Your task to perform on an android device: turn pop-ups on in chrome Image 0: 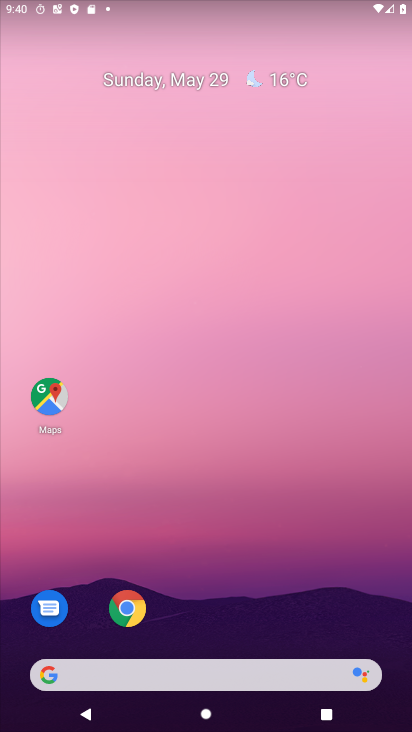
Step 0: click (142, 613)
Your task to perform on an android device: turn pop-ups on in chrome Image 1: 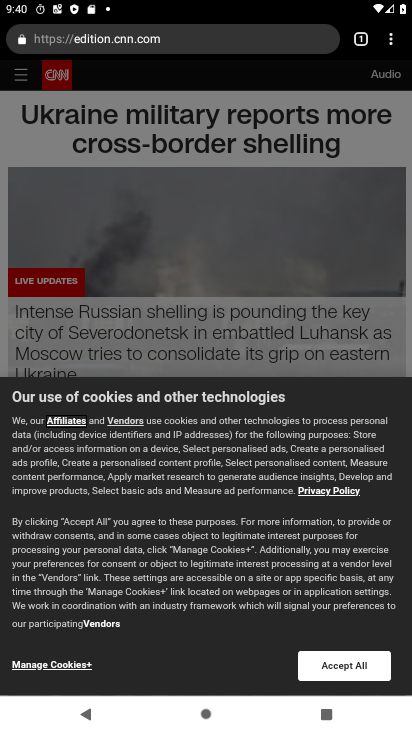
Step 1: click (389, 41)
Your task to perform on an android device: turn pop-ups on in chrome Image 2: 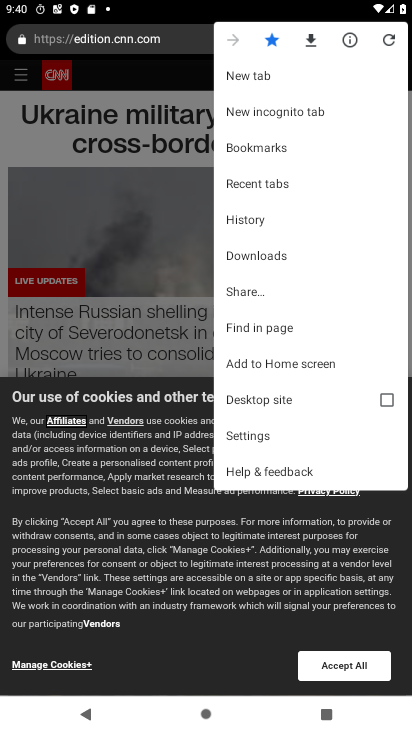
Step 2: click (272, 434)
Your task to perform on an android device: turn pop-ups on in chrome Image 3: 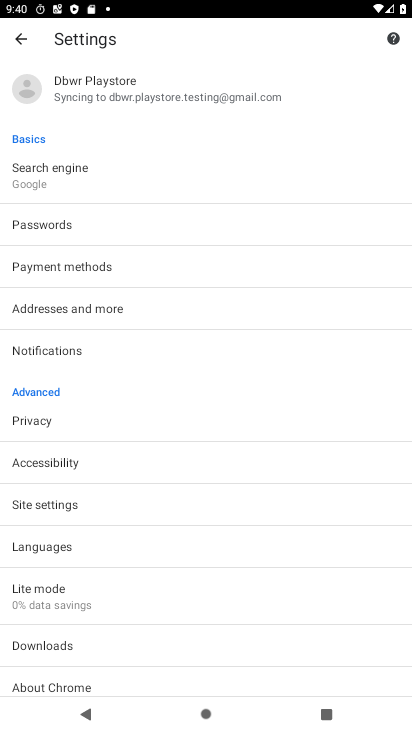
Step 3: click (50, 518)
Your task to perform on an android device: turn pop-ups on in chrome Image 4: 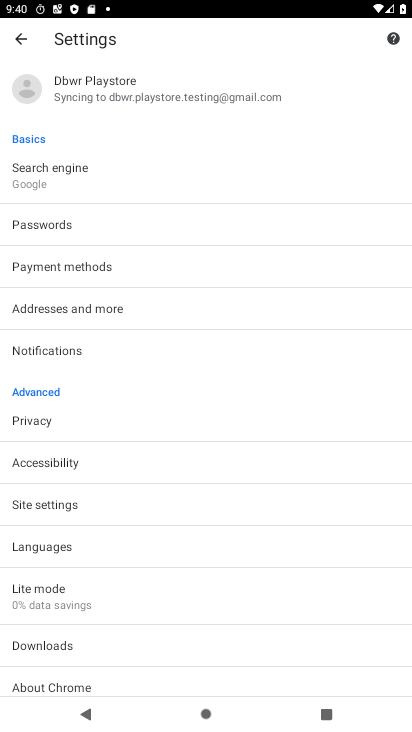
Step 4: drag from (72, 631) to (117, 250)
Your task to perform on an android device: turn pop-ups on in chrome Image 5: 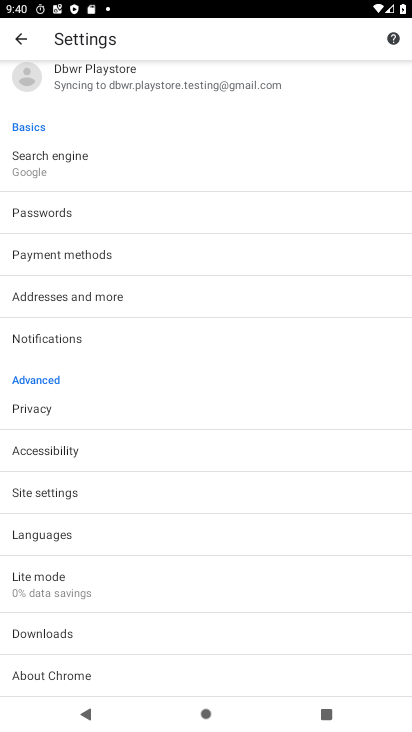
Step 5: click (86, 494)
Your task to perform on an android device: turn pop-ups on in chrome Image 6: 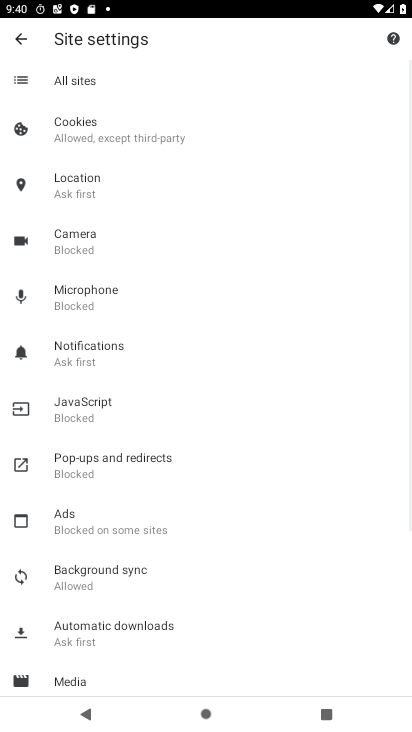
Step 6: click (92, 460)
Your task to perform on an android device: turn pop-ups on in chrome Image 7: 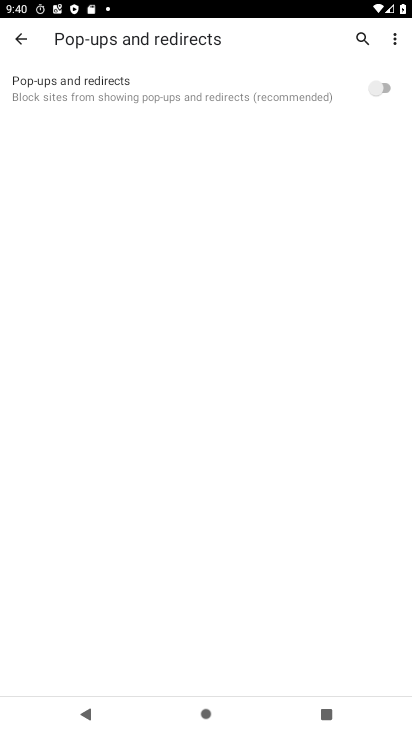
Step 7: click (392, 89)
Your task to perform on an android device: turn pop-ups on in chrome Image 8: 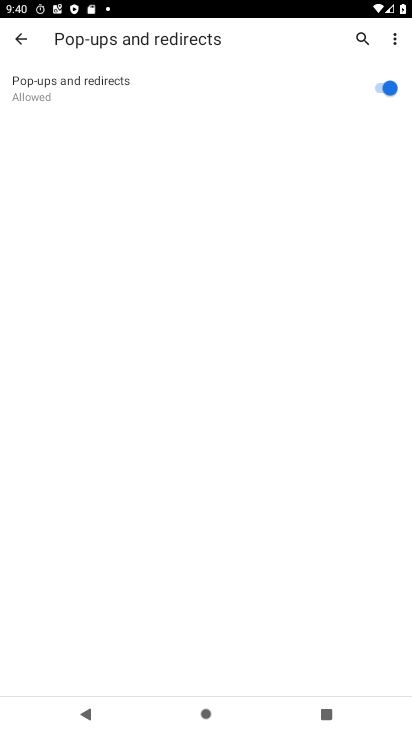
Step 8: task complete